Your task to perform on an android device: Turn off the flashlight Image 0: 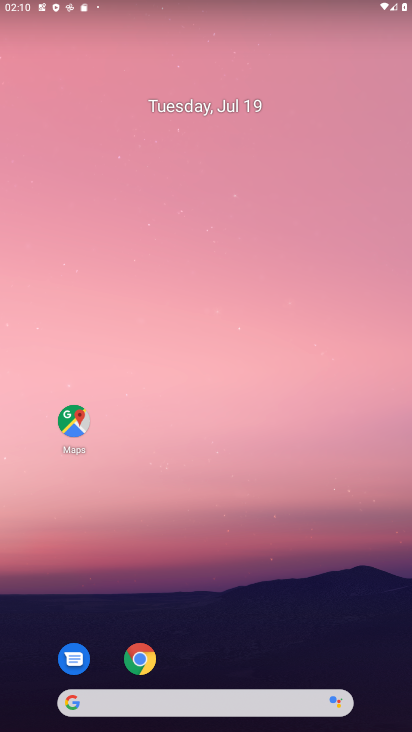
Step 0: drag from (366, 0) to (339, 537)
Your task to perform on an android device: Turn off the flashlight Image 1: 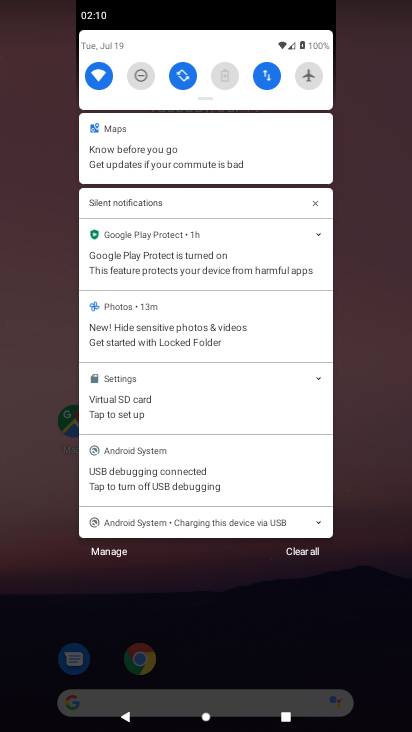
Step 1: task complete